Your task to perform on an android device: find photos in the google photos app Image 0: 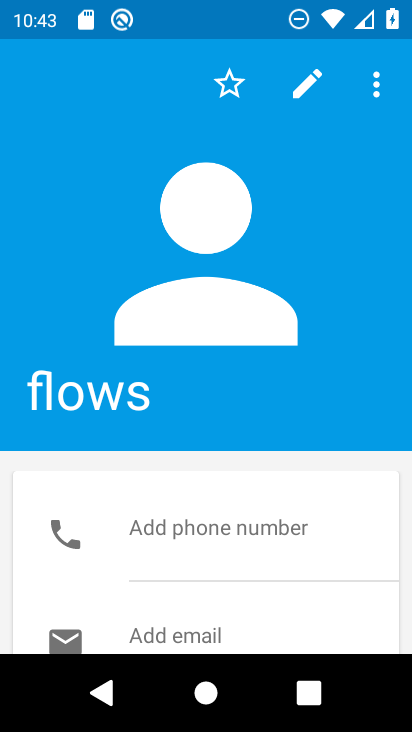
Step 0: press home button
Your task to perform on an android device: find photos in the google photos app Image 1: 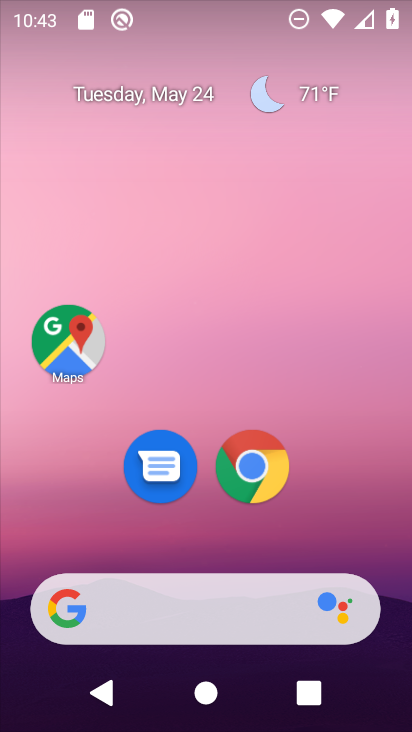
Step 1: drag from (199, 520) to (229, 71)
Your task to perform on an android device: find photos in the google photos app Image 2: 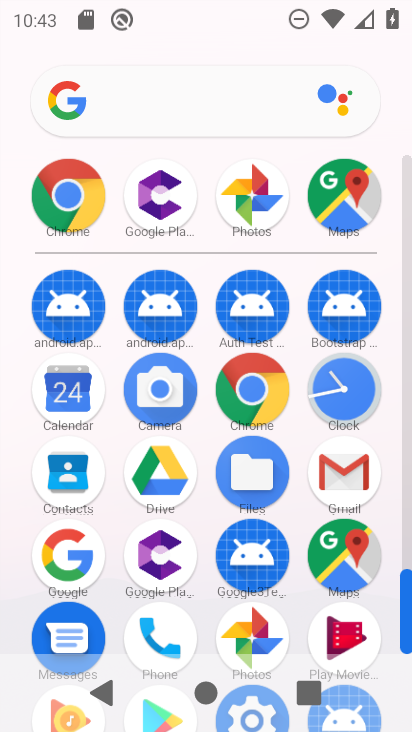
Step 2: click (261, 625)
Your task to perform on an android device: find photos in the google photos app Image 3: 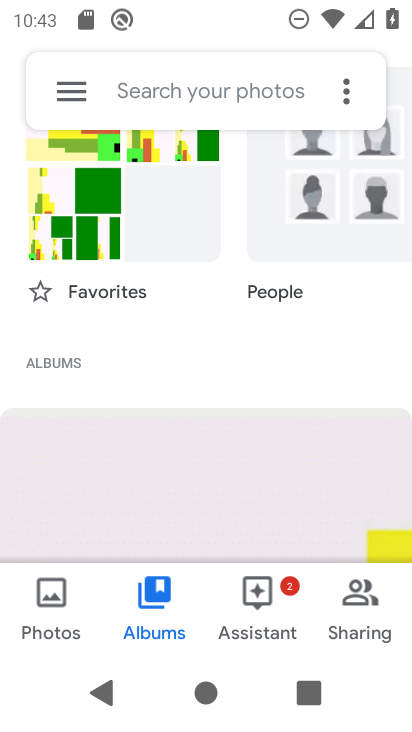
Step 3: click (58, 585)
Your task to perform on an android device: find photos in the google photos app Image 4: 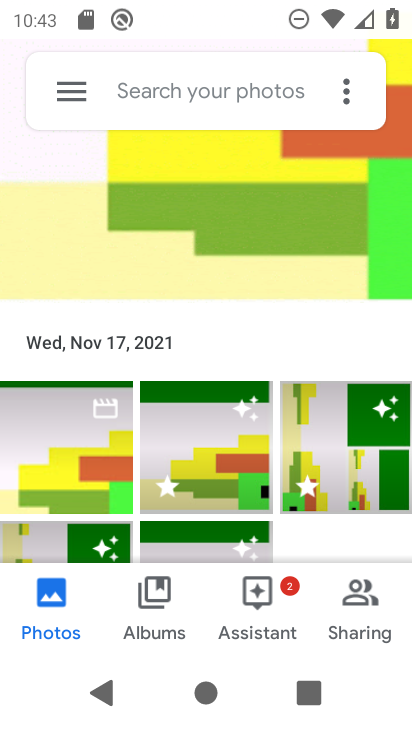
Step 4: task complete